Your task to perform on an android device: open app "Google Keep" Image 0: 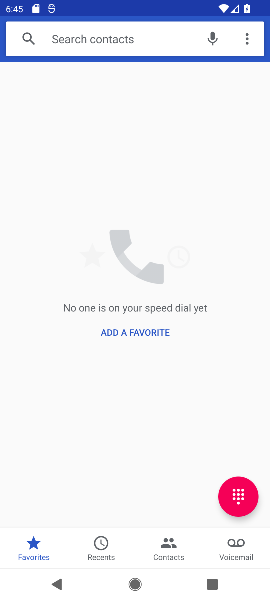
Step 0: task complete